Your task to perform on an android device: turn off notifications in google photos Image 0: 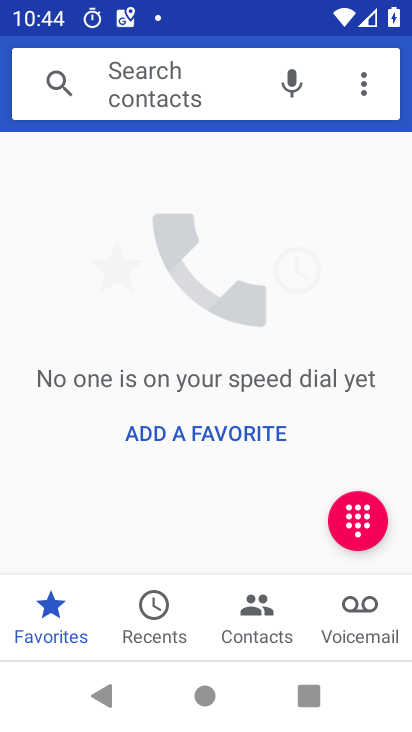
Step 0: press home button
Your task to perform on an android device: turn off notifications in google photos Image 1: 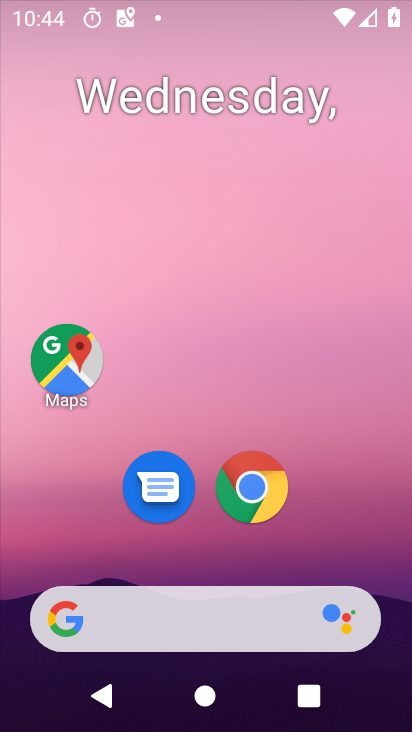
Step 1: drag from (237, 629) to (302, 65)
Your task to perform on an android device: turn off notifications in google photos Image 2: 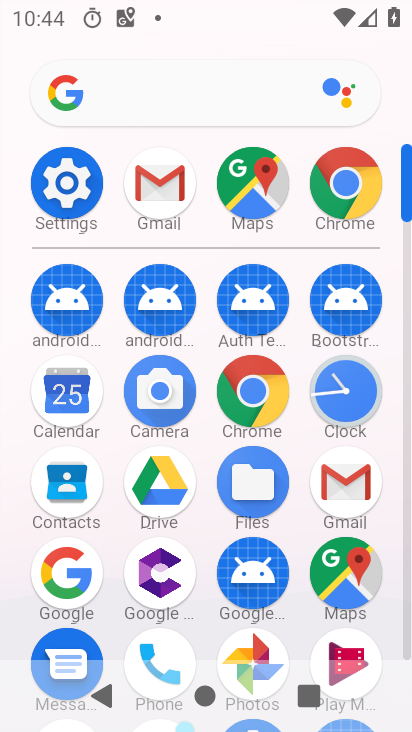
Step 2: drag from (277, 619) to (271, 232)
Your task to perform on an android device: turn off notifications in google photos Image 3: 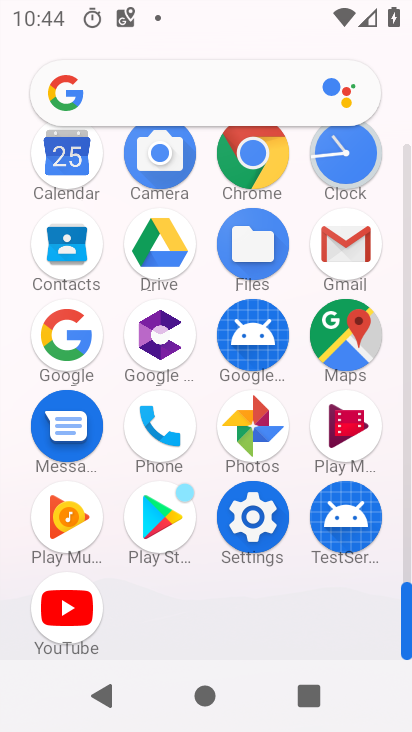
Step 3: click (245, 424)
Your task to perform on an android device: turn off notifications in google photos Image 4: 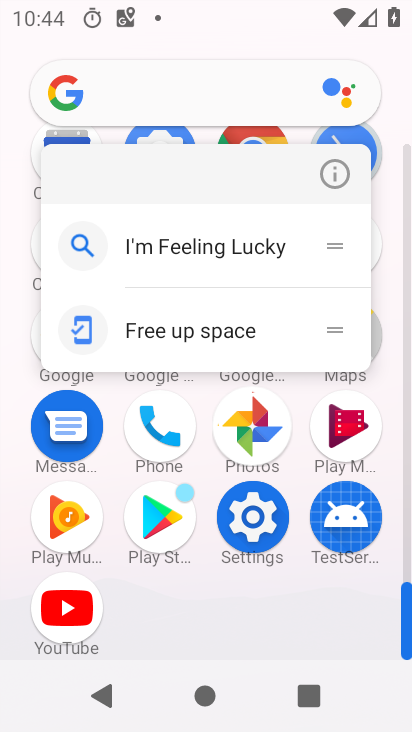
Step 4: click (245, 424)
Your task to perform on an android device: turn off notifications in google photos Image 5: 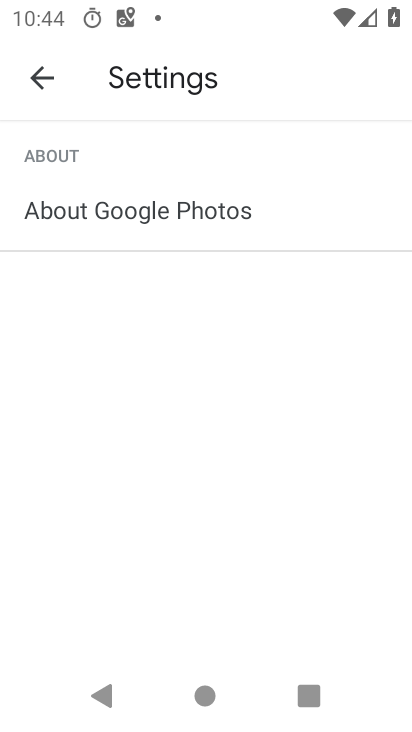
Step 5: press back button
Your task to perform on an android device: turn off notifications in google photos Image 6: 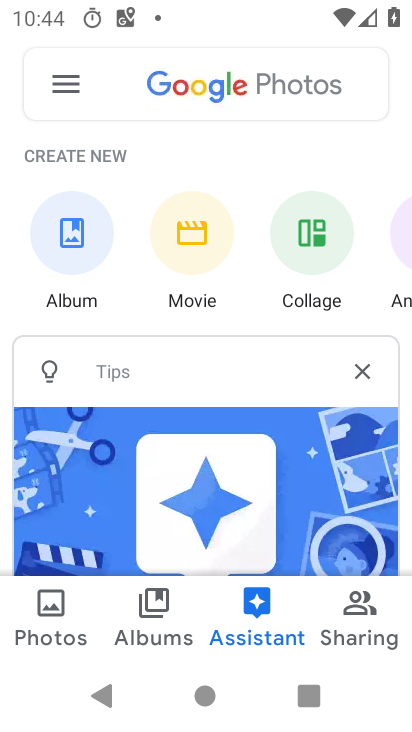
Step 6: click (71, 69)
Your task to perform on an android device: turn off notifications in google photos Image 7: 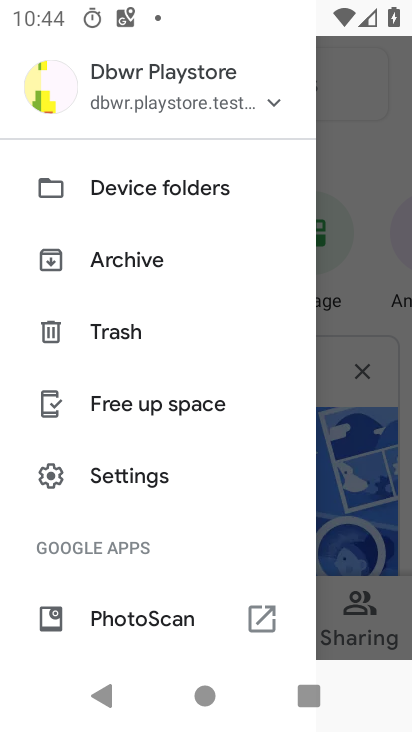
Step 7: click (170, 469)
Your task to perform on an android device: turn off notifications in google photos Image 8: 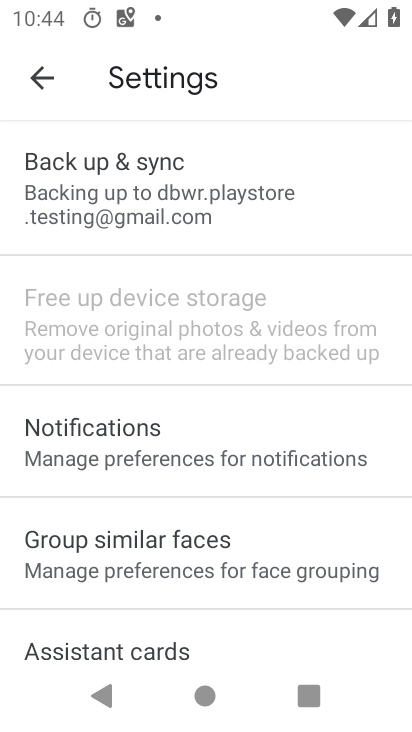
Step 8: click (219, 454)
Your task to perform on an android device: turn off notifications in google photos Image 9: 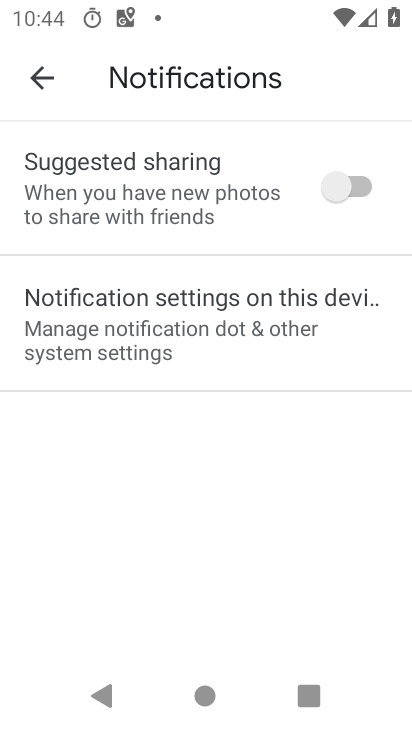
Step 9: click (276, 350)
Your task to perform on an android device: turn off notifications in google photos Image 10: 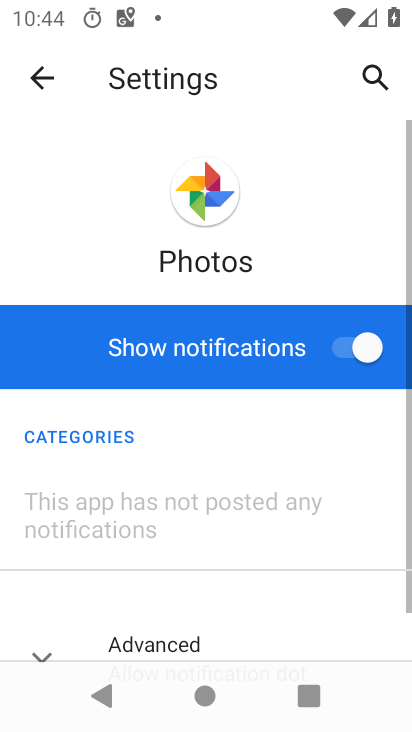
Step 10: click (345, 360)
Your task to perform on an android device: turn off notifications in google photos Image 11: 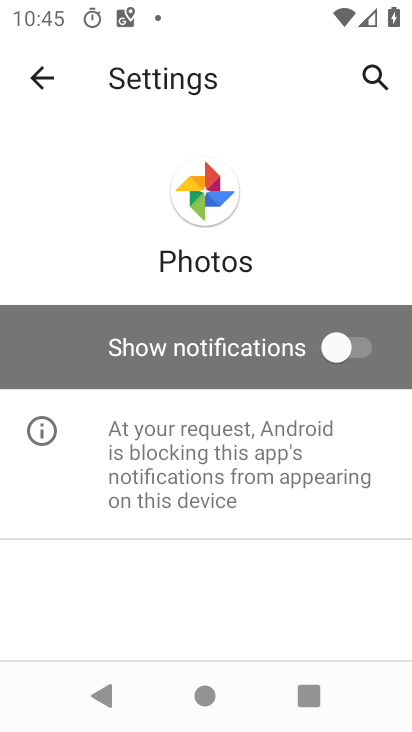
Step 11: task complete